Your task to perform on an android device: Go to Google maps Image 0: 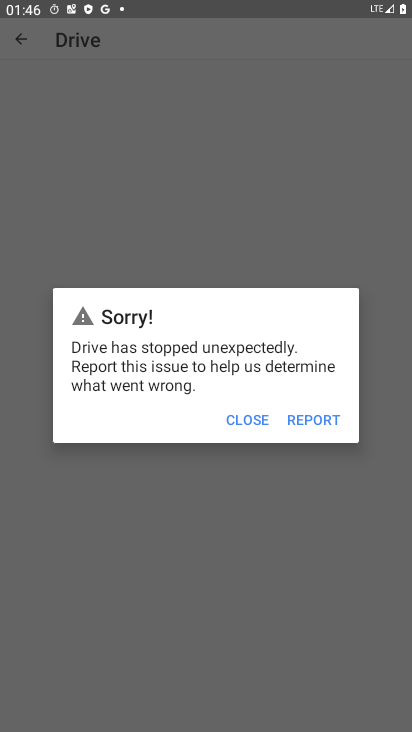
Step 0: press home button
Your task to perform on an android device: Go to Google maps Image 1: 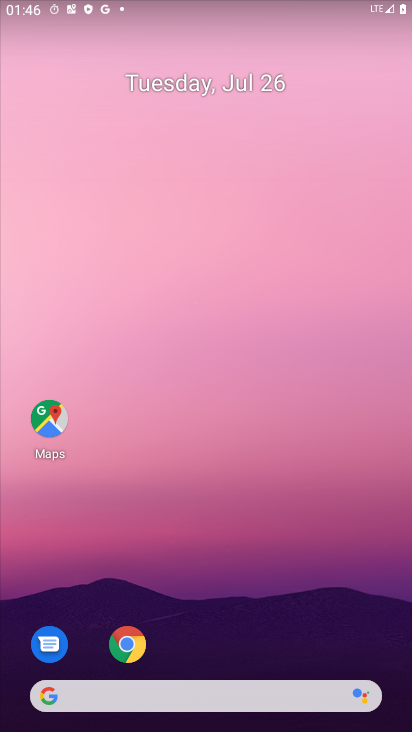
Step 1: click (45, 423)
Your task to perform on an android device: Go to Google maps Image 2: 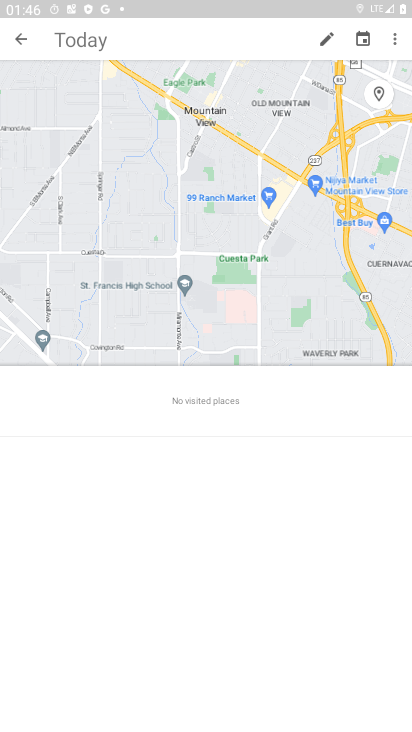
Step 2: task complete